Your task to perform on an android device: clear all cookies in the chrome app Image 0: 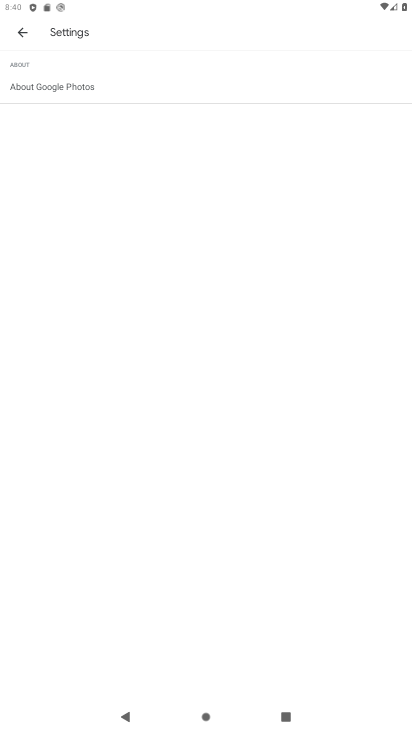
Step 0: press home button
Your task to perform on an android device: clear all cookies in the chrome app Image 1: 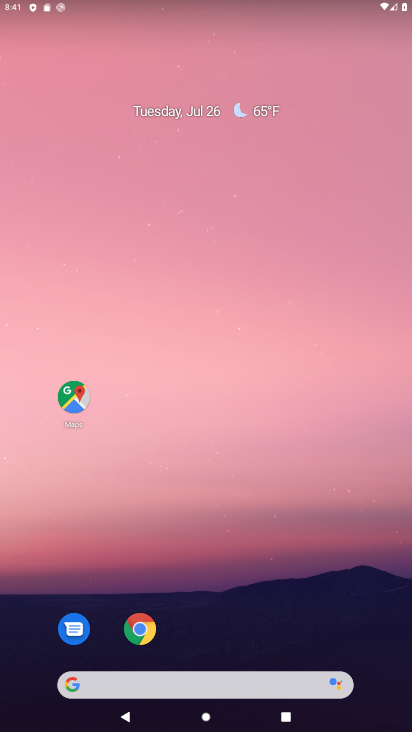
Step 1: drag from (261, 499) to (254, 74)
Your task to perform on an android device: clear all cookies in the chrome app Image 2: 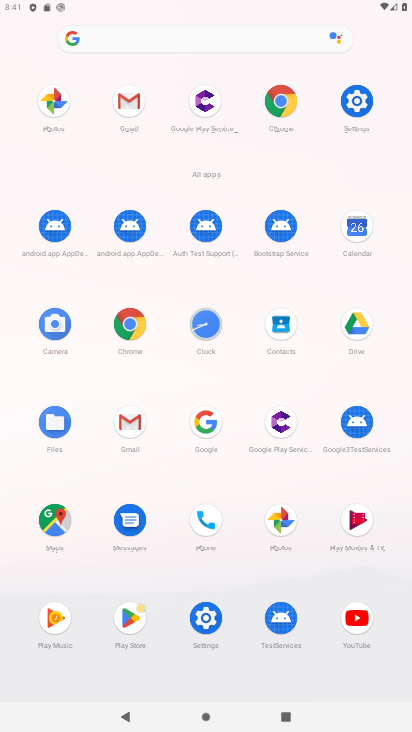
Step 2: click (284, 95)
Your task to perform on an android device: clear all cookies in the chrome app Image 3: 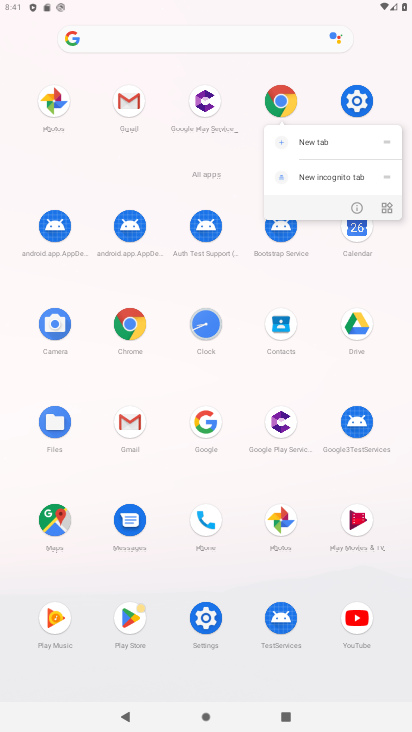
Step 3: click (281, 107)
Your task to perform on an android device: clear all cookies in the chrome app Image 4: 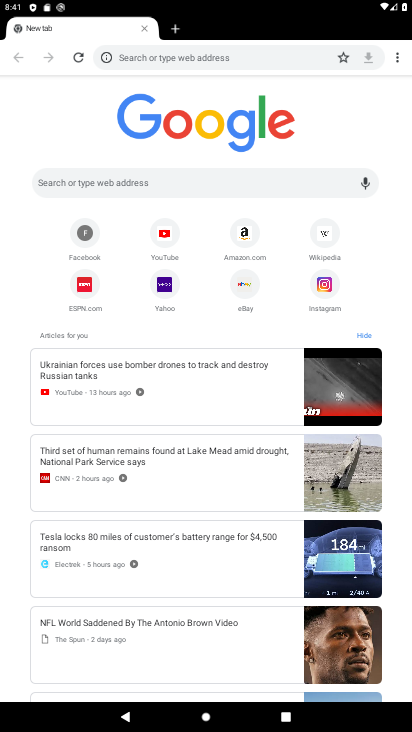
Step 4: drag from (400, 55) to (310, 170)
Your task to perform on an android device: clear all cookies in the chrome app Image 5: 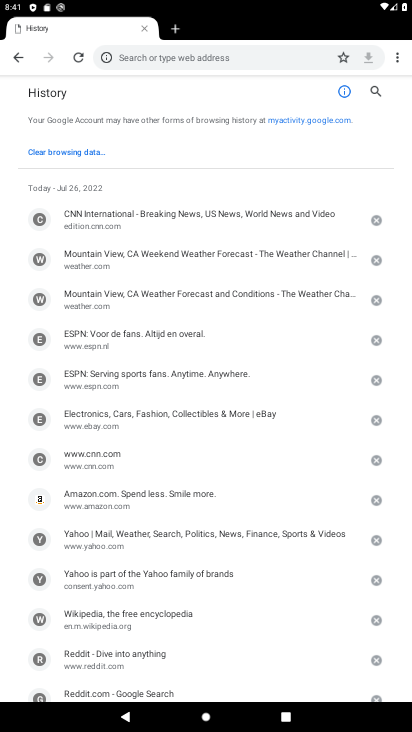
Step 5: click (70, 154)
Your task to perform on an android device: clear all cookies in the chrome app Image 6: 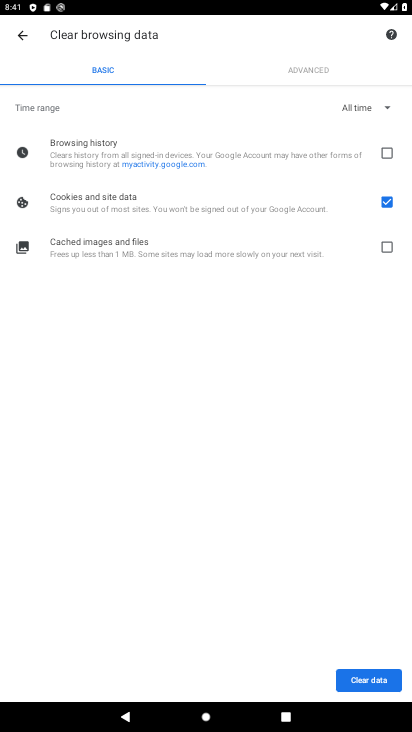
Step 6: click (373, 686)
Your task to perform on an android device: clear all cookies in the chrome app Image 7: 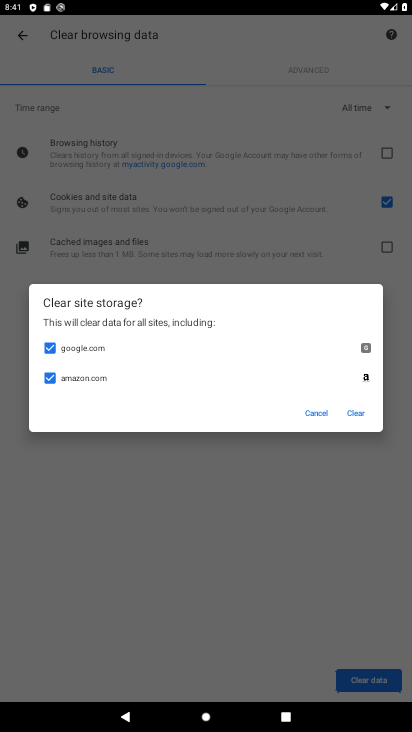
Step 7: click (359, 417)
Your task to perform on an android device: clear all cookies in the chrome app Image 8: 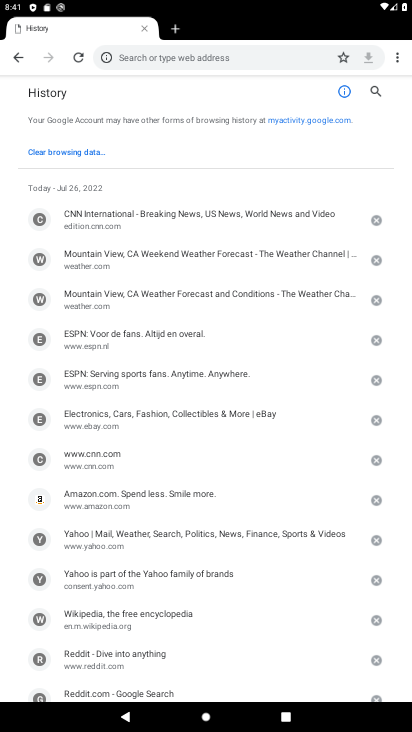
Step 8: task complete